Your task to perform on an android device: Go to accessibility settings Image 0: 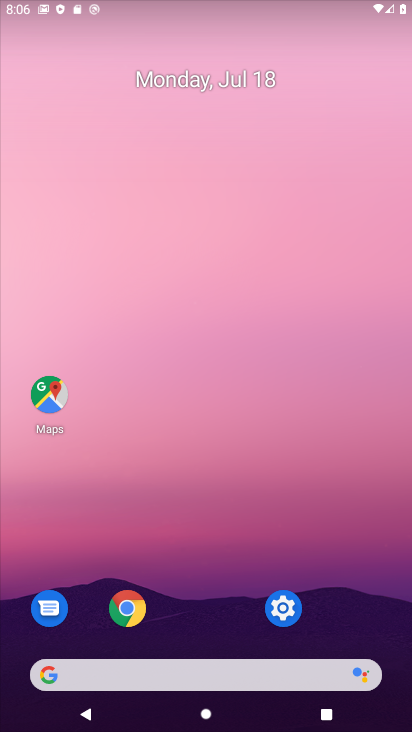
Step 0: press home button
Your task to perform on an android device: Go to accessibility settings Image 1: 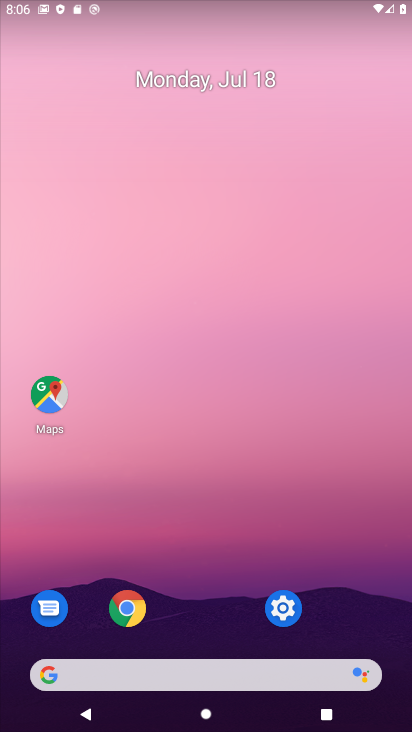
Step 1: click (287, 603)
Your task to perform on an android device: Go to accessibility settings Image 2: 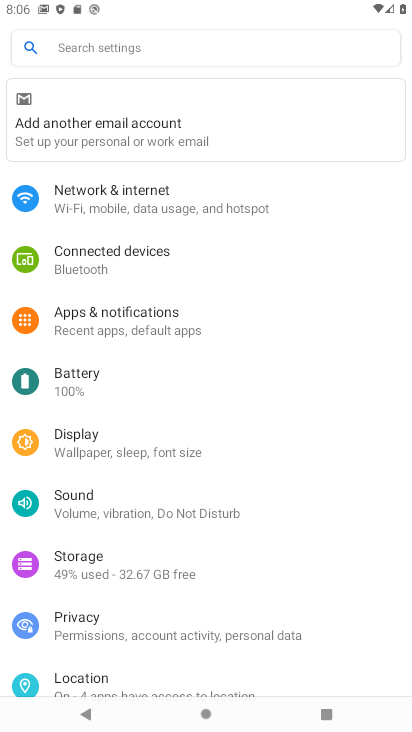
Step 2: click (128, 387)
Your task to perform on an android device: Go to accessibility settings Image 3: 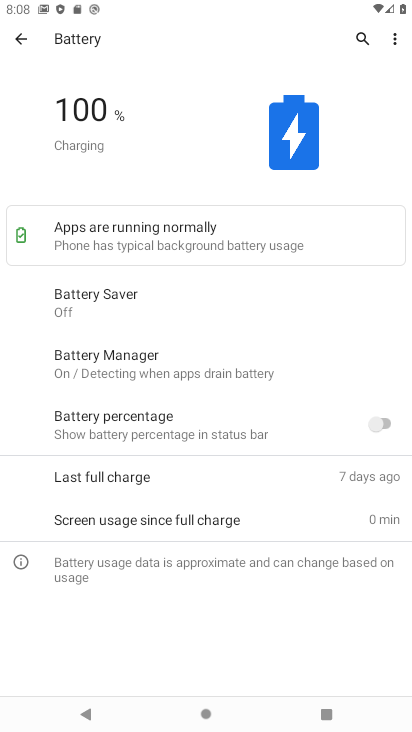
Step 3: task complete